Your task to perform on an android device: What's on Reddit this week Image 0: 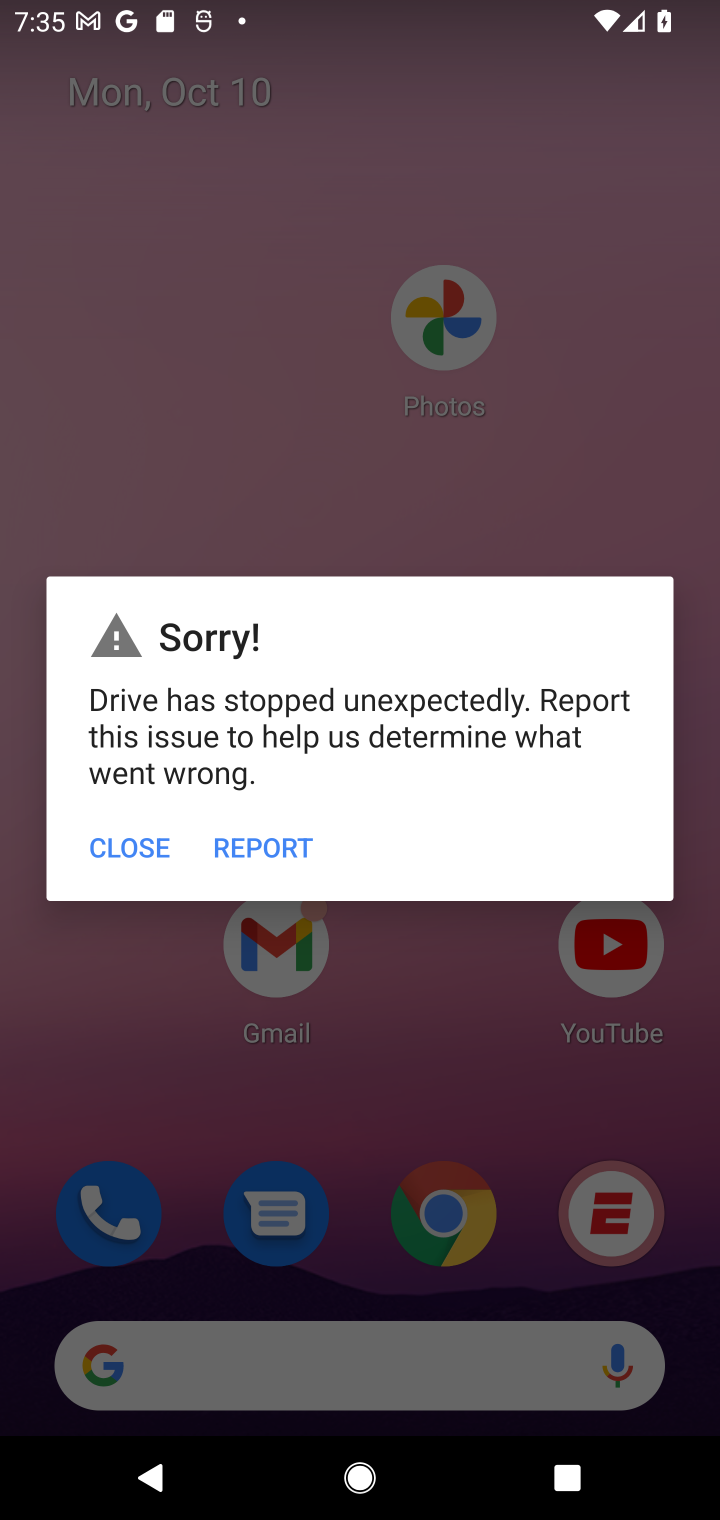
Step 0: click (141, 850)
Your task to perform on an android device: What's on Reddit this week Image 1: 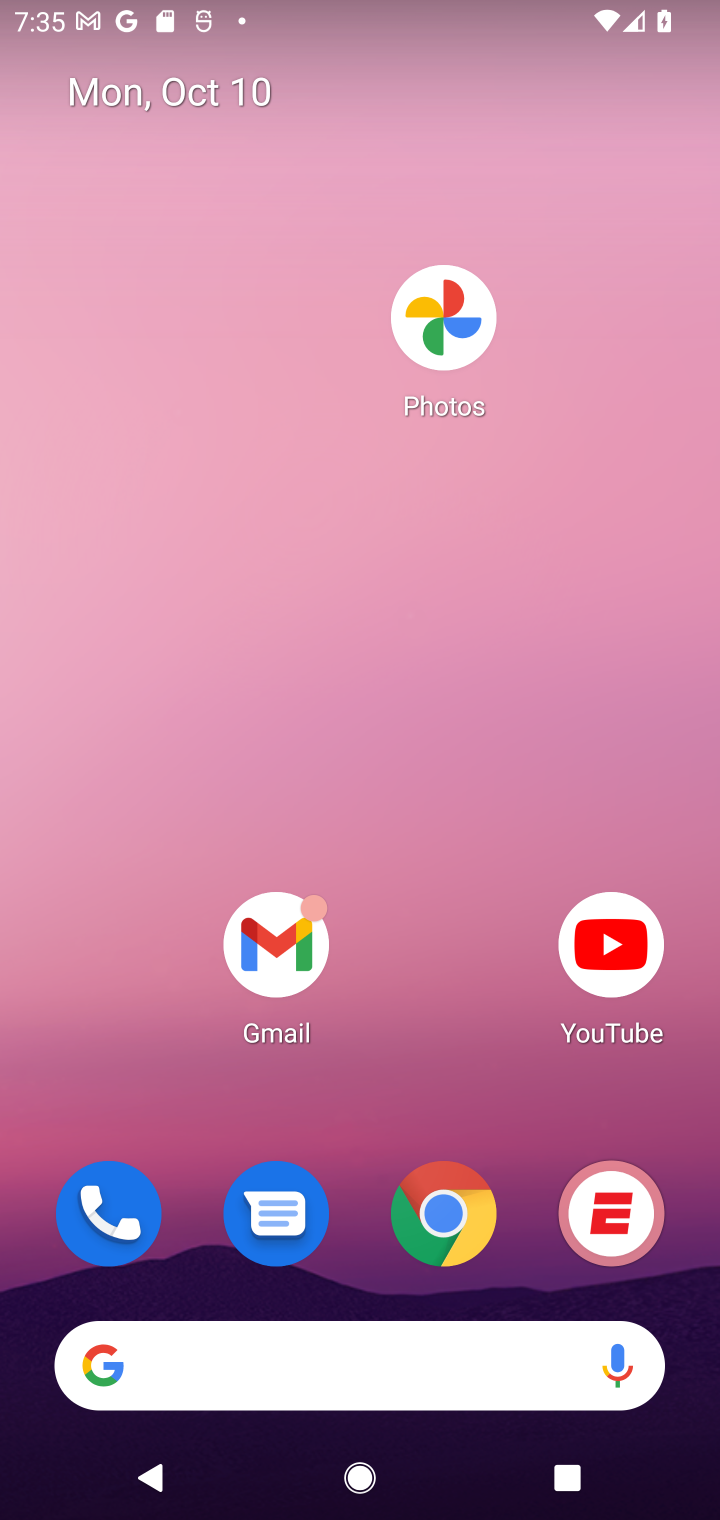
Step 1: click (413, 1359)
Your task to perform on an android device: What's on Reddit this week Image 2: 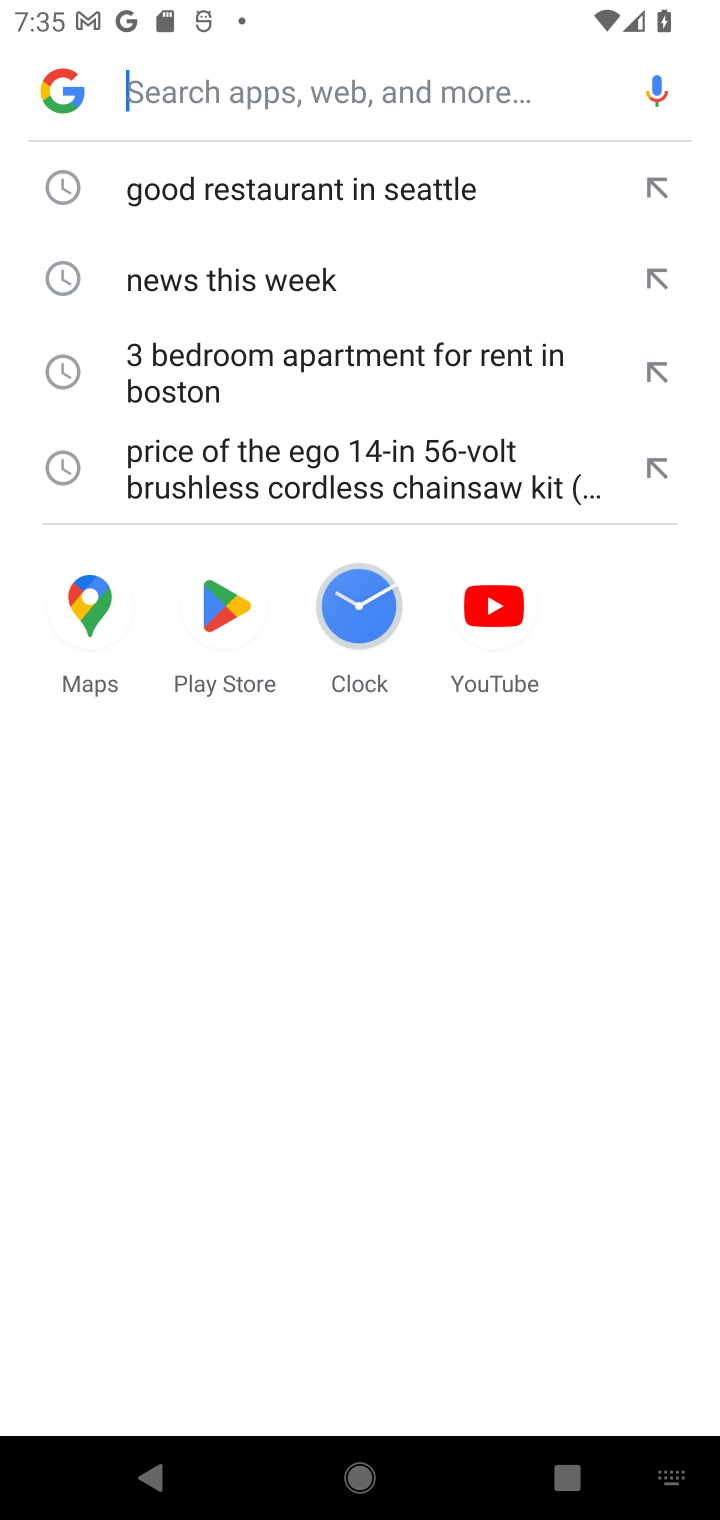
Step 2: type "Reddit this week"
Your task to perform on an android device: What's on Reddit this week Image 3: 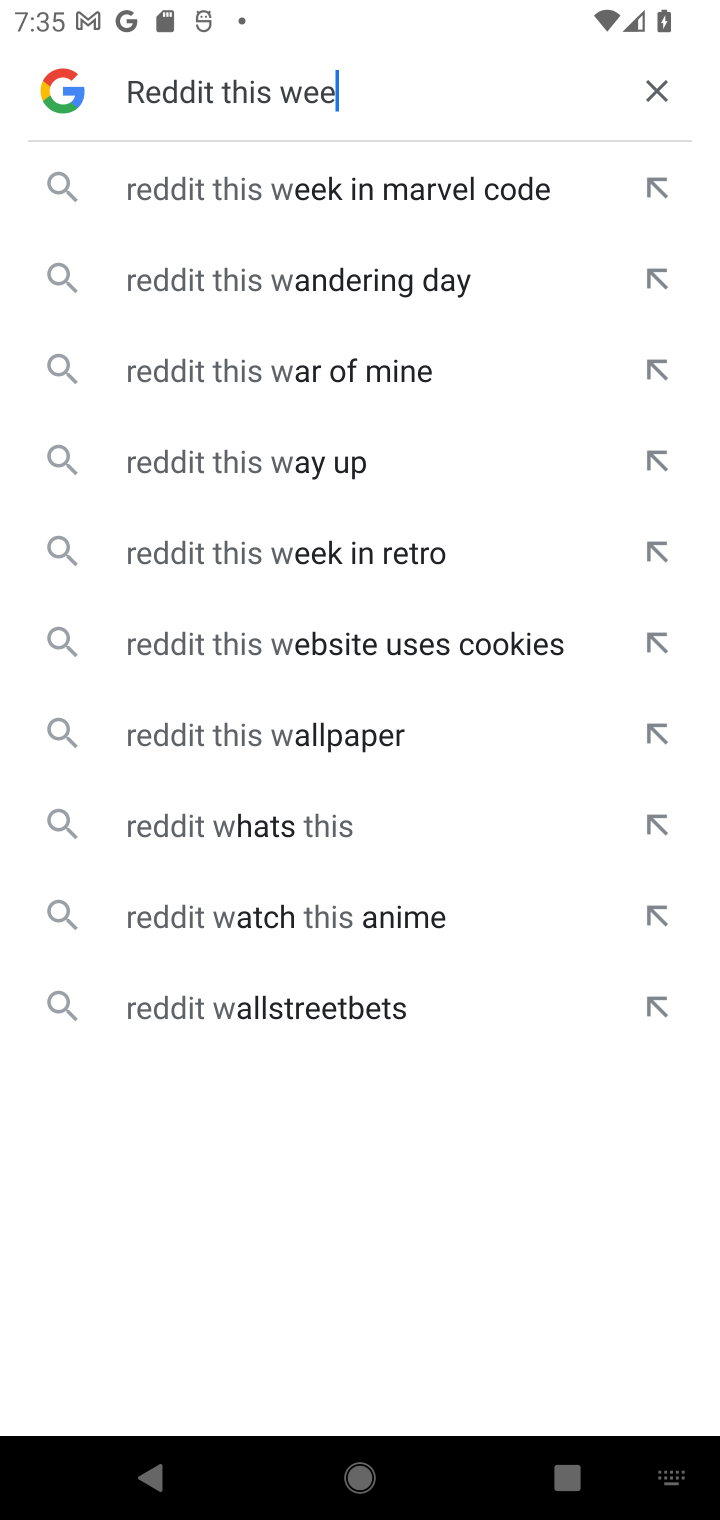
Step 3: type ""
Your task to perform on an android device: What's on Reddit this week Image 4: 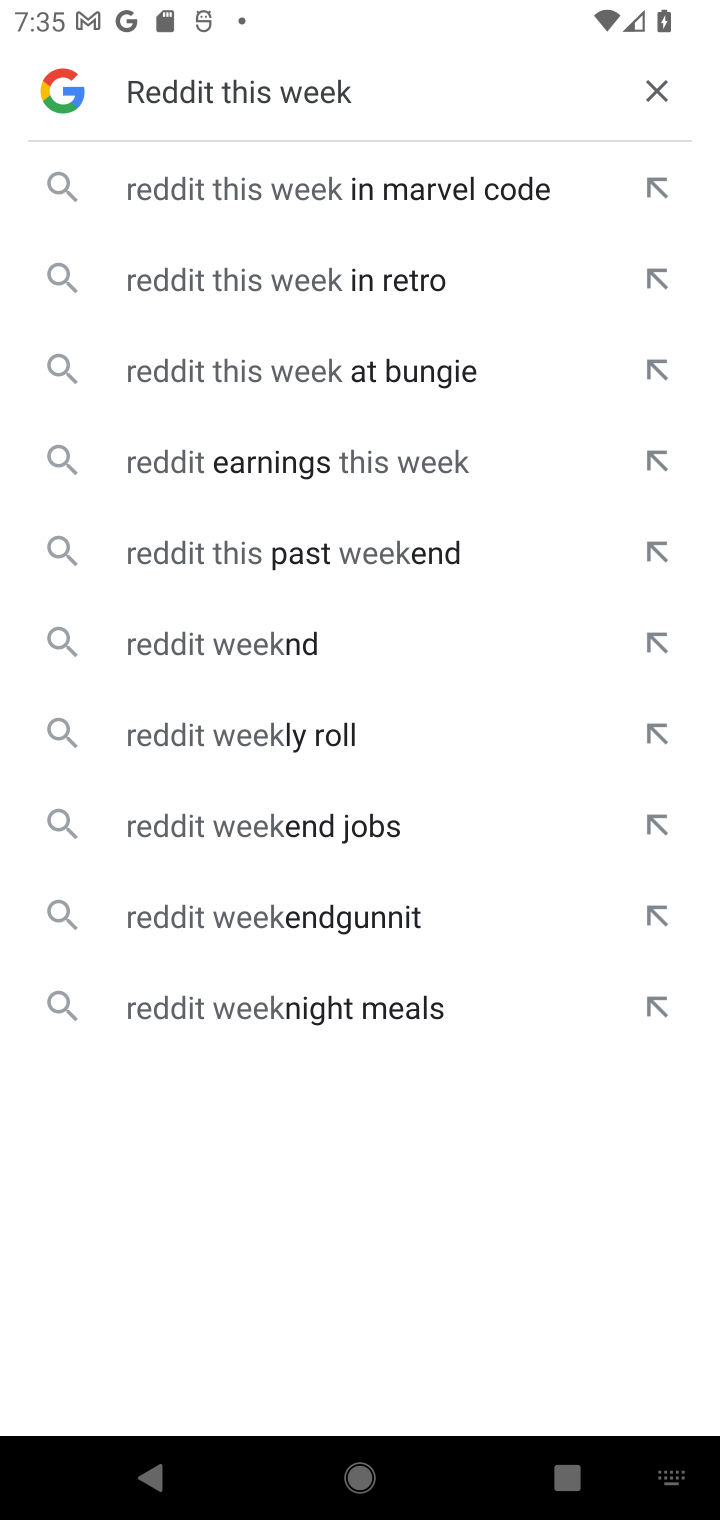
Step 4: click (659, 89)
Your task to perform on an android device: What's on Reddit this week Image 5: 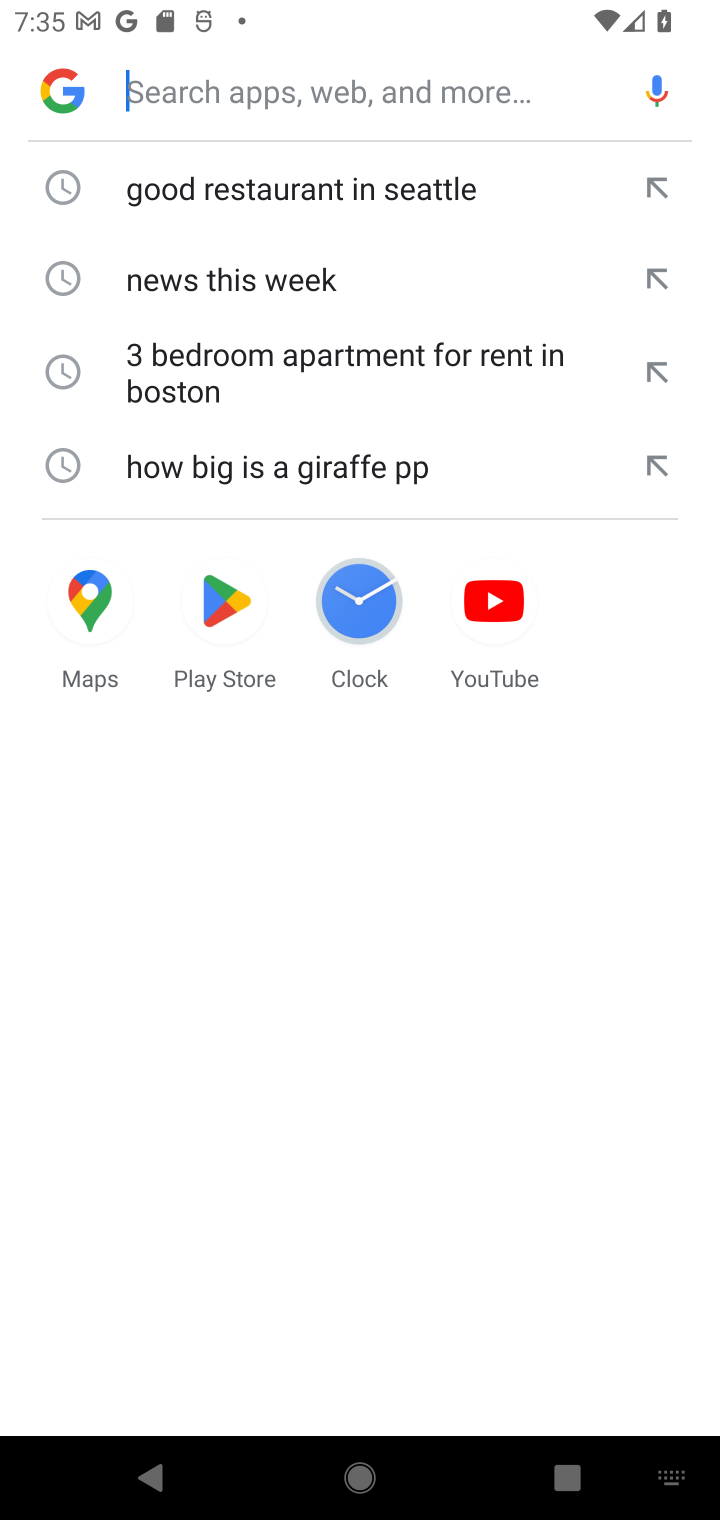
Step 5: type "Reddit"
Your task to perform on an android device: What's on Reddit this week Image 6: 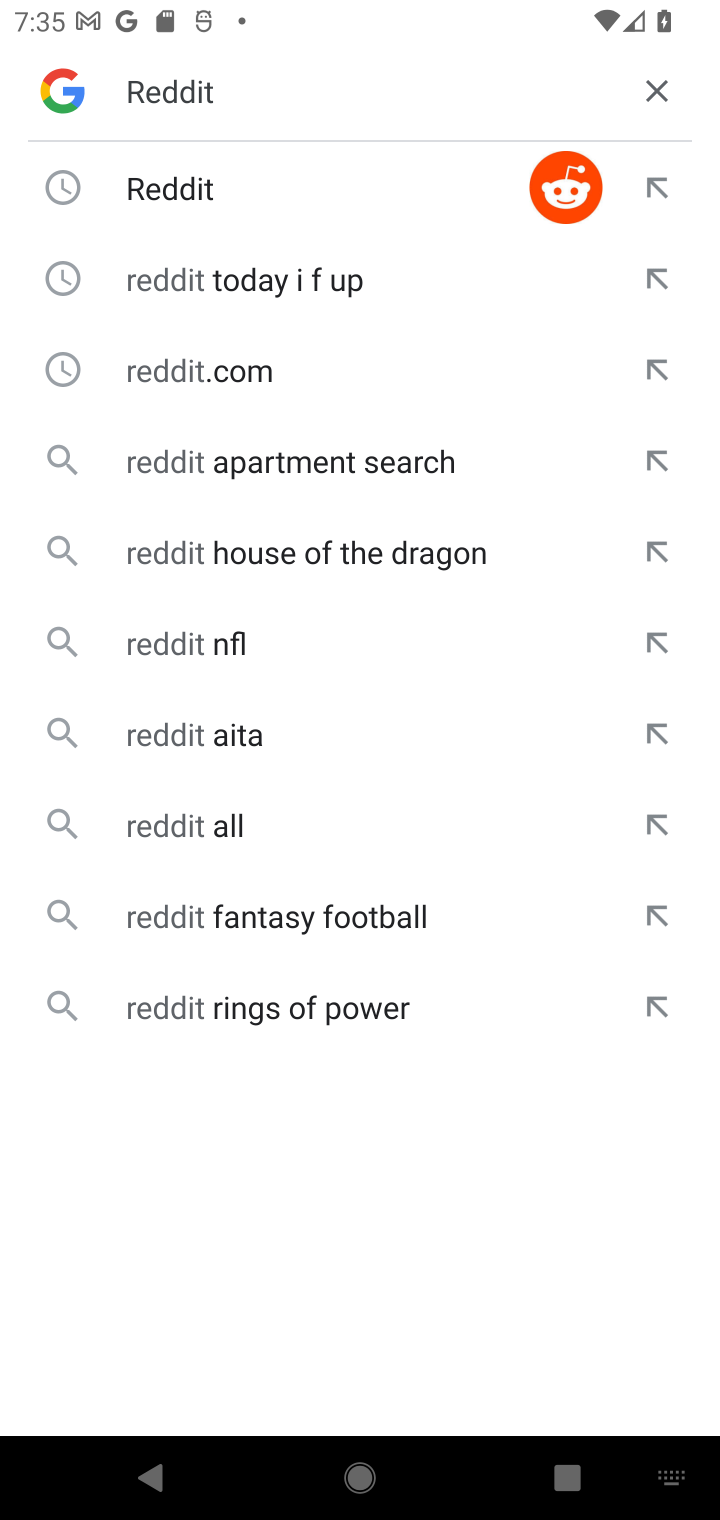
Step 6: click (231, 390)
Your task to perform on an android device: What's on Reddit this week Image 7: 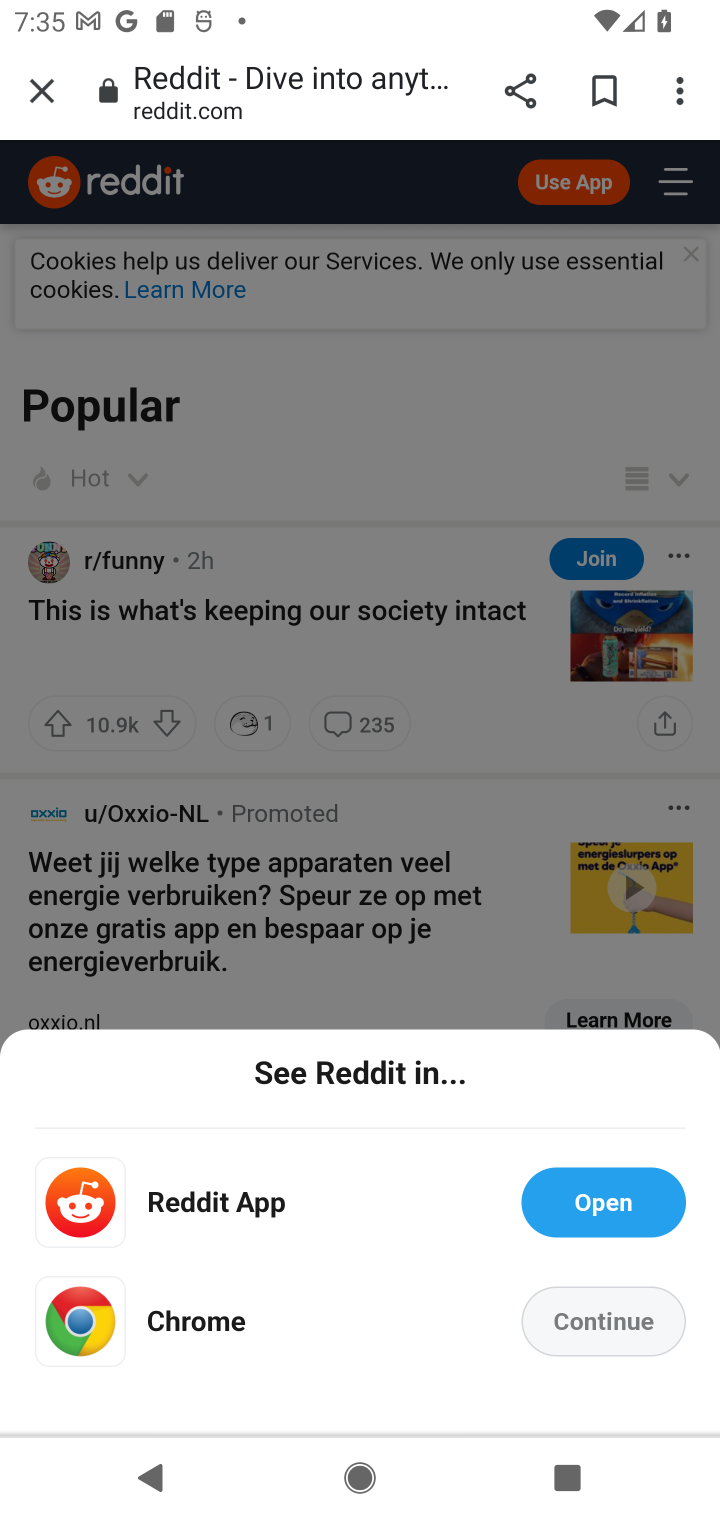
Step 7: click (597, 1314)
Your task to perform on an android device: What's on Reddit this week Image 8: 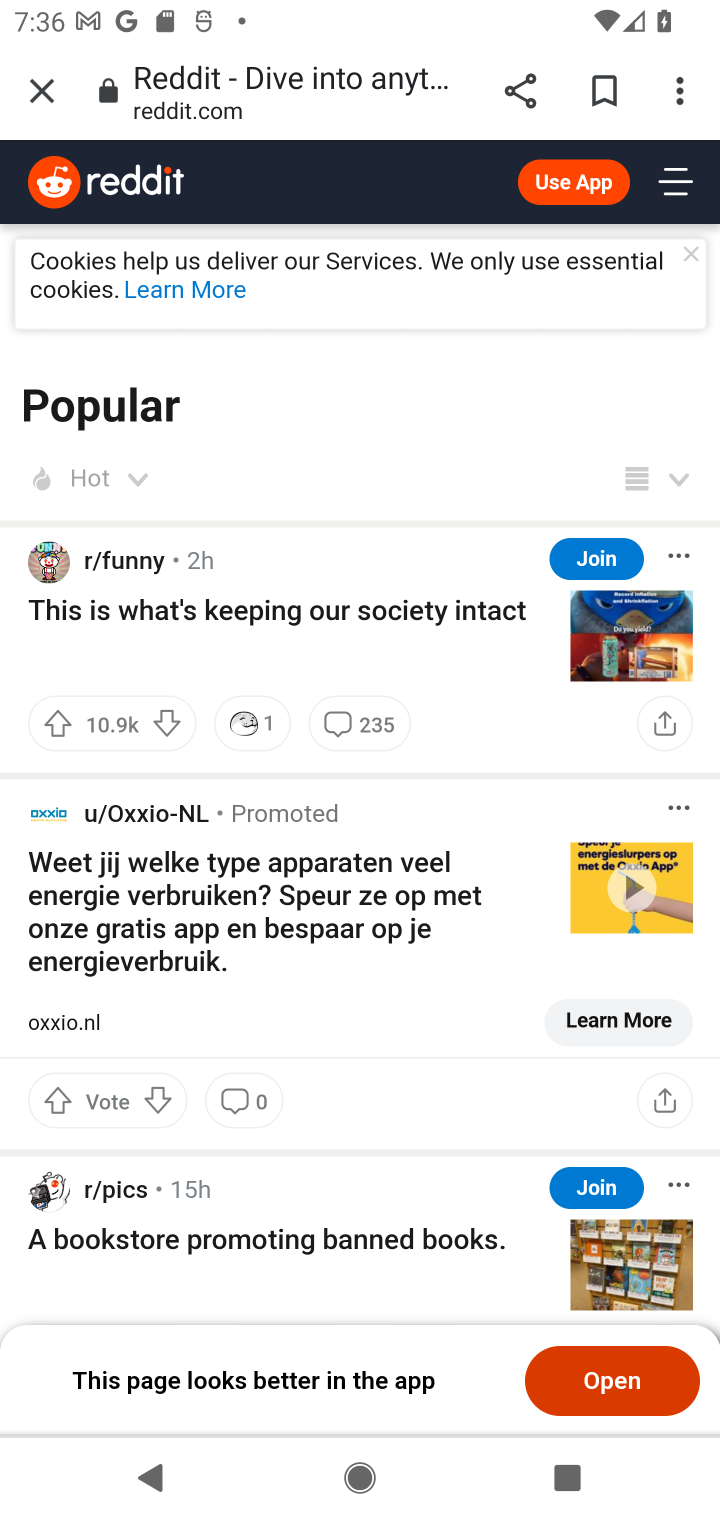
Step 8: task complete